Your task to perform on an android device: Search for "dell xps" on costco, select the first entry, add it to the cart, then select checkout. Image 0: 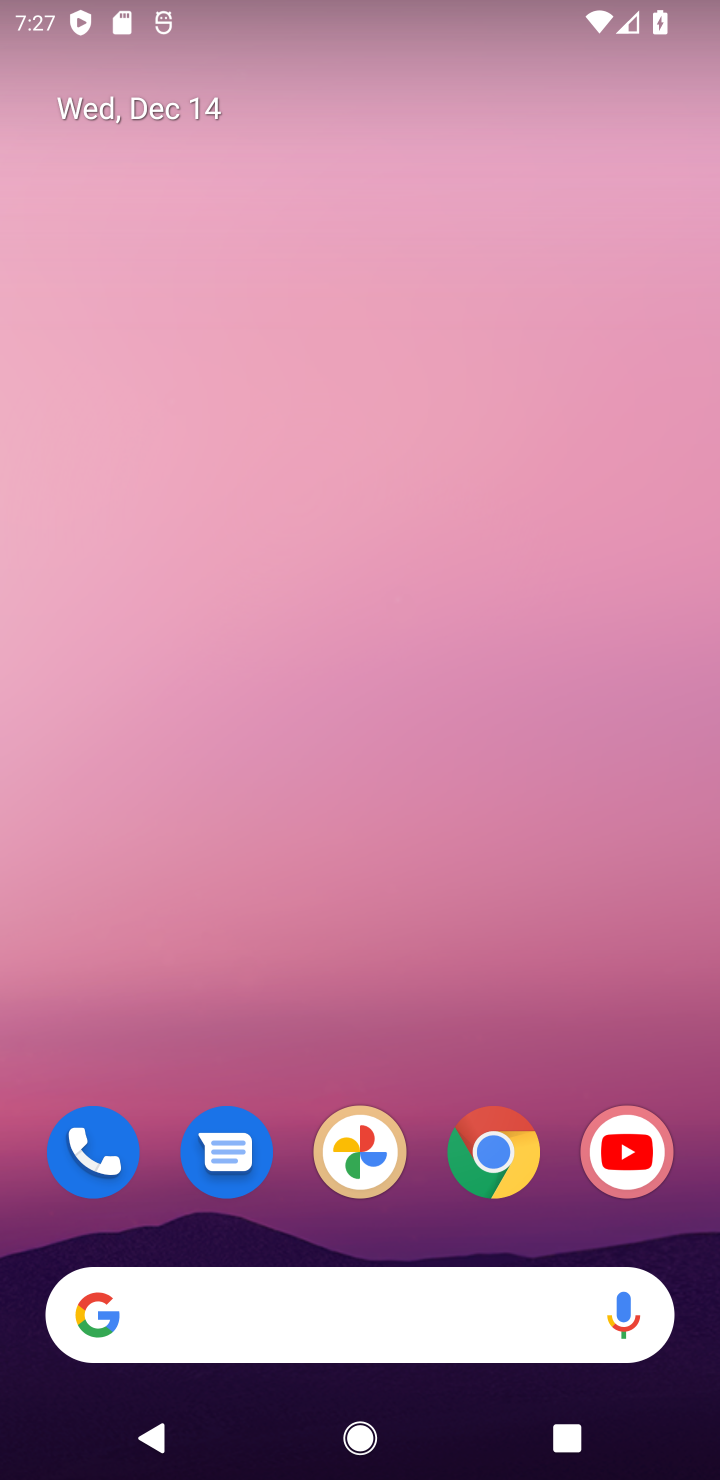
Step 0: click (495, 1140)
Your task to perform on an android device: Search for "dell xps" on costco, select the first entry, add it to the cart, then select checkout. Image 1: 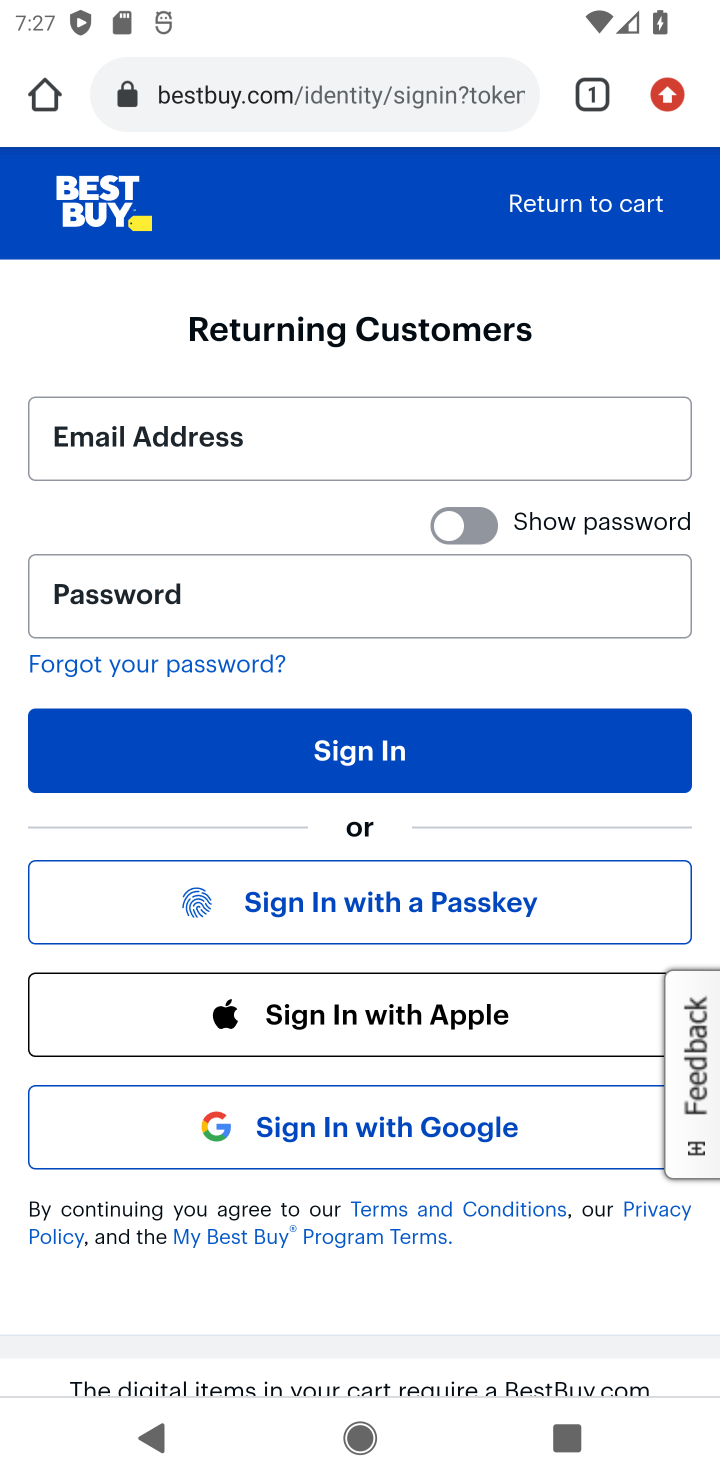
Step 1: click (261, 92)
Your task to perform on an android device: Search for "dell xps" on costco, select the first entry, add it to the cart, then select checkout. Image 2: 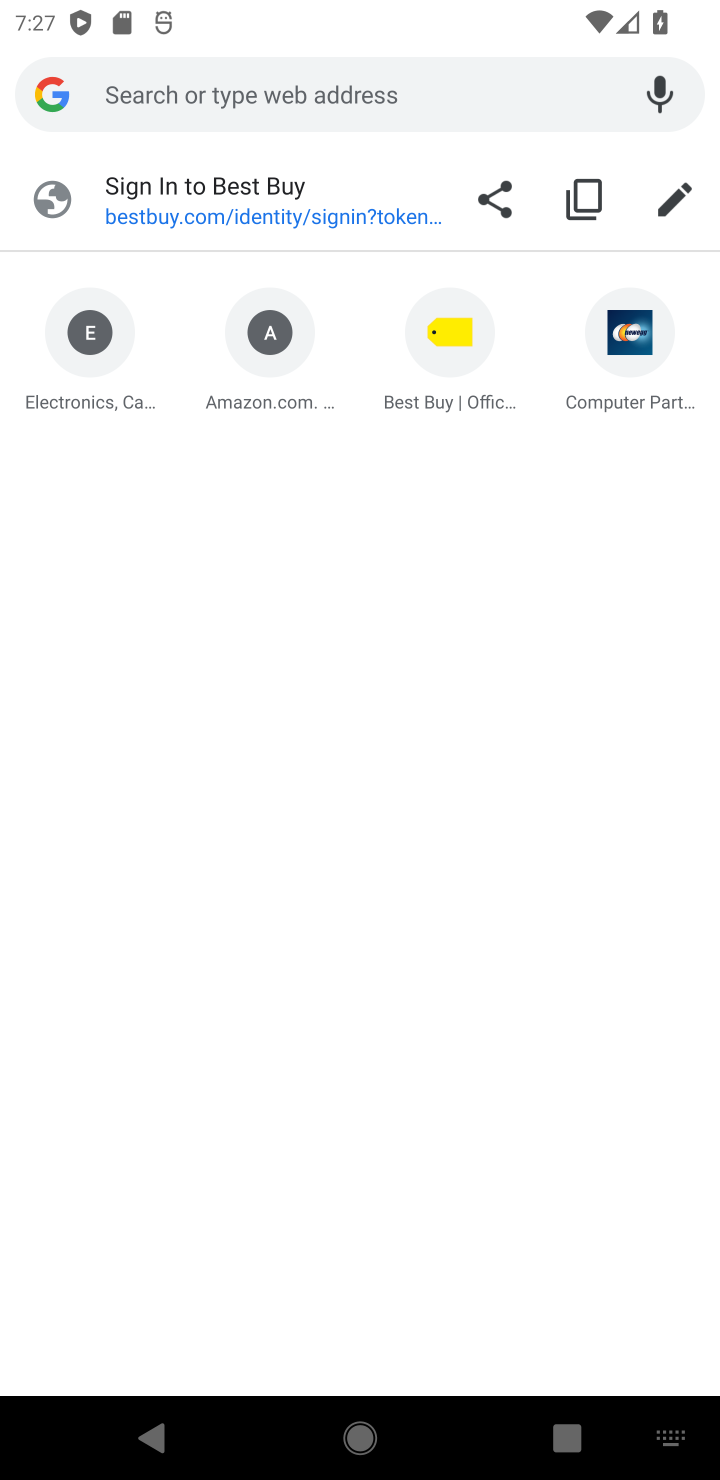
Step 2: type "costco.com"
Your task to perform on an android device: Search for "dell xps" on costco, select the first entry, add it to the cart, then select checkout. Image 3: 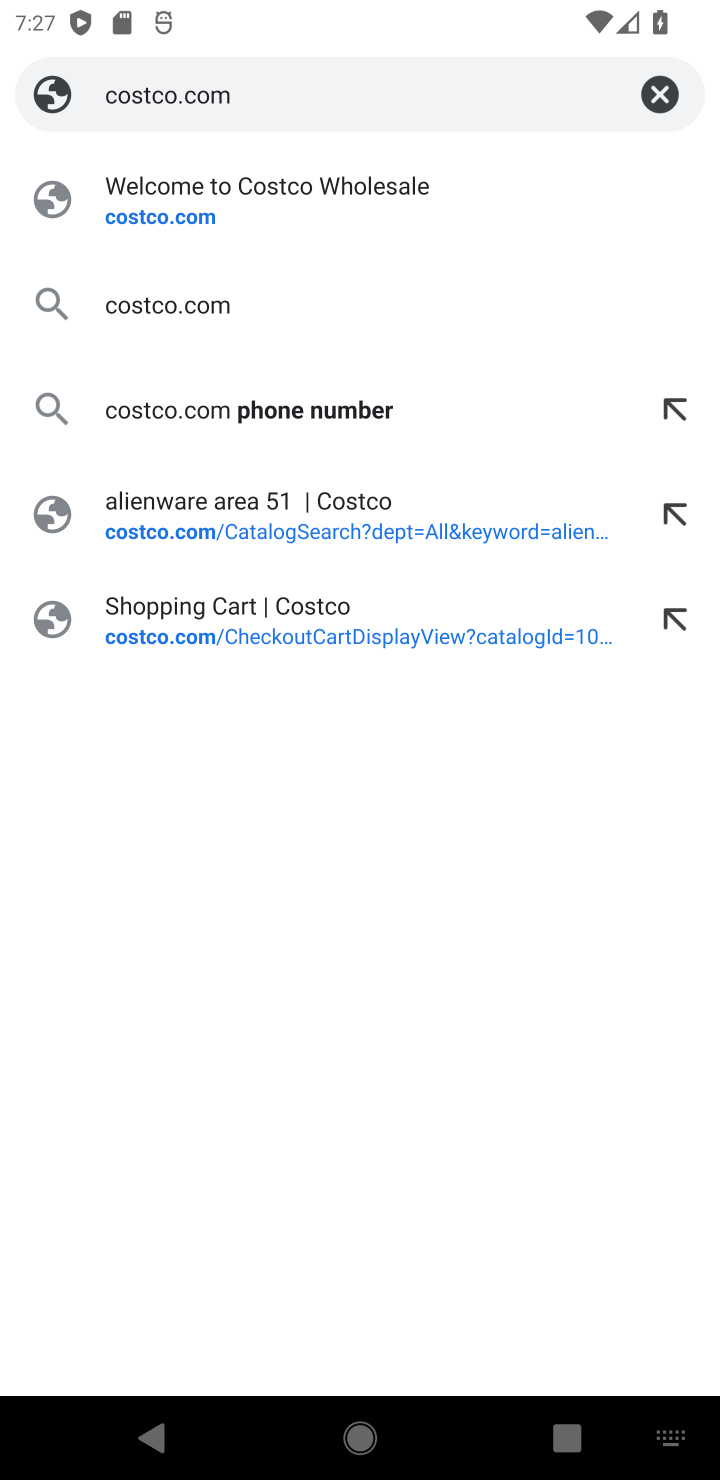
Step 3: click (176, 208)
Your task to perform on an android device: Search for "dell xps" on costco, select the first entry, add it to the cart, then select checkout. Image 4: 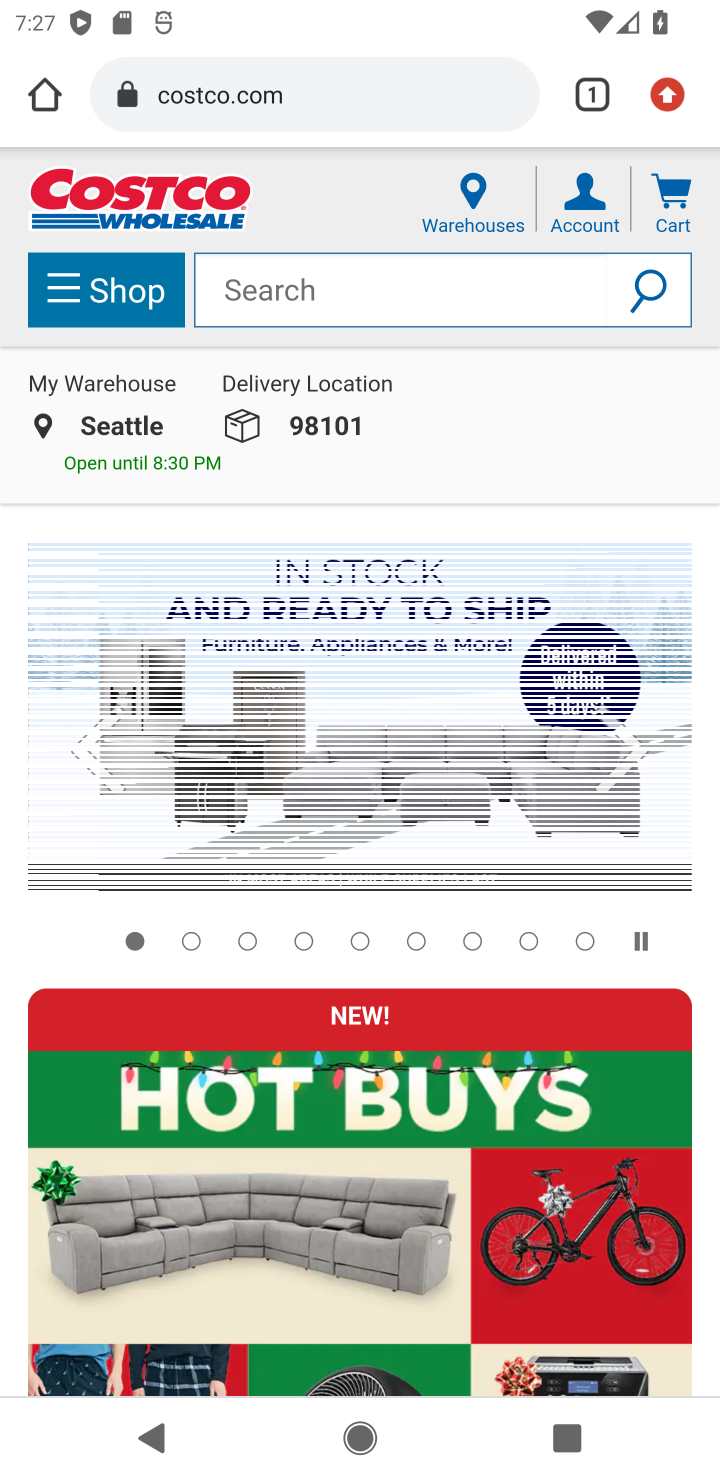
Step 4: click (321, 293)
Your task to perform on an android device: Search for "dell xps" on costco, select the first entry, add it to the cart, then select checkout. Image 5: 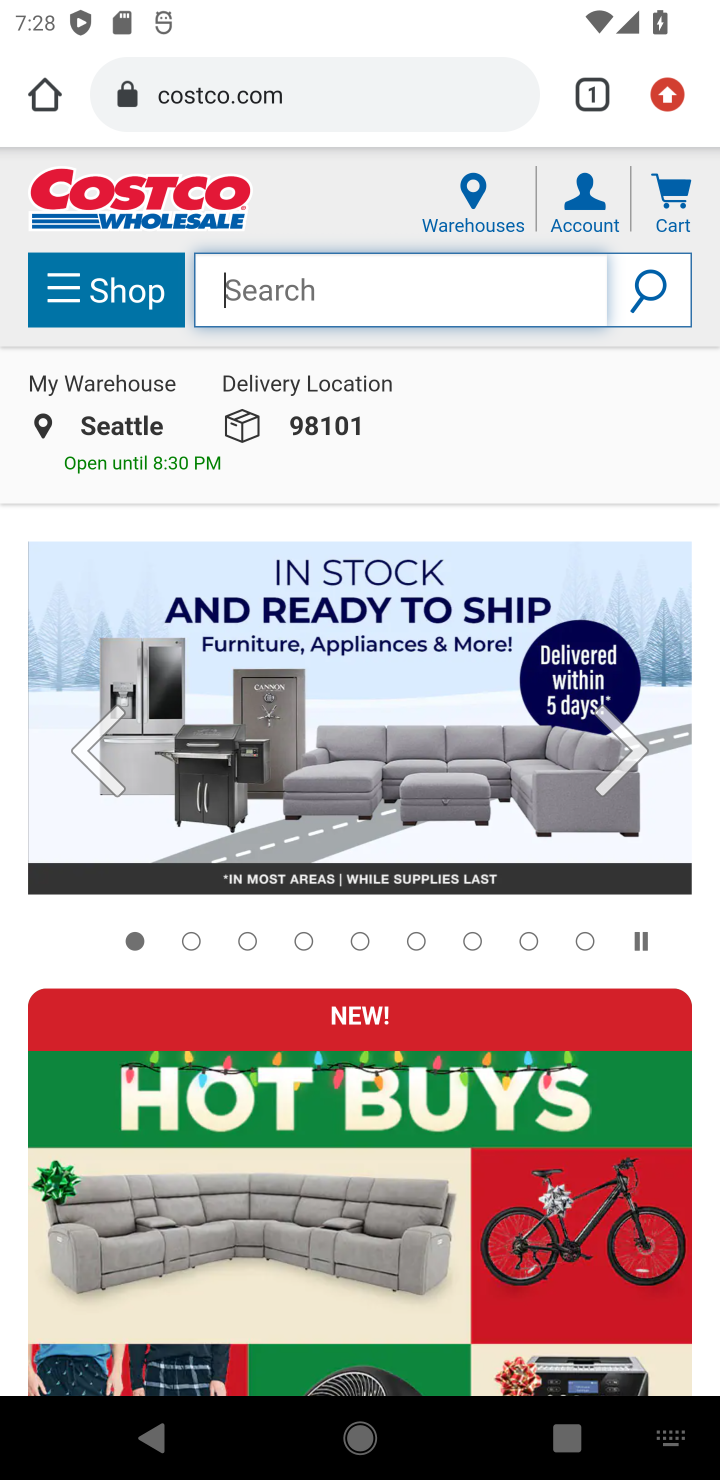
Step 5: type "dell xps"
Your task to perform on an android device: Search for "dell xps" on costco, select the first entry, add it to the cart, then select checkout. Image 6: 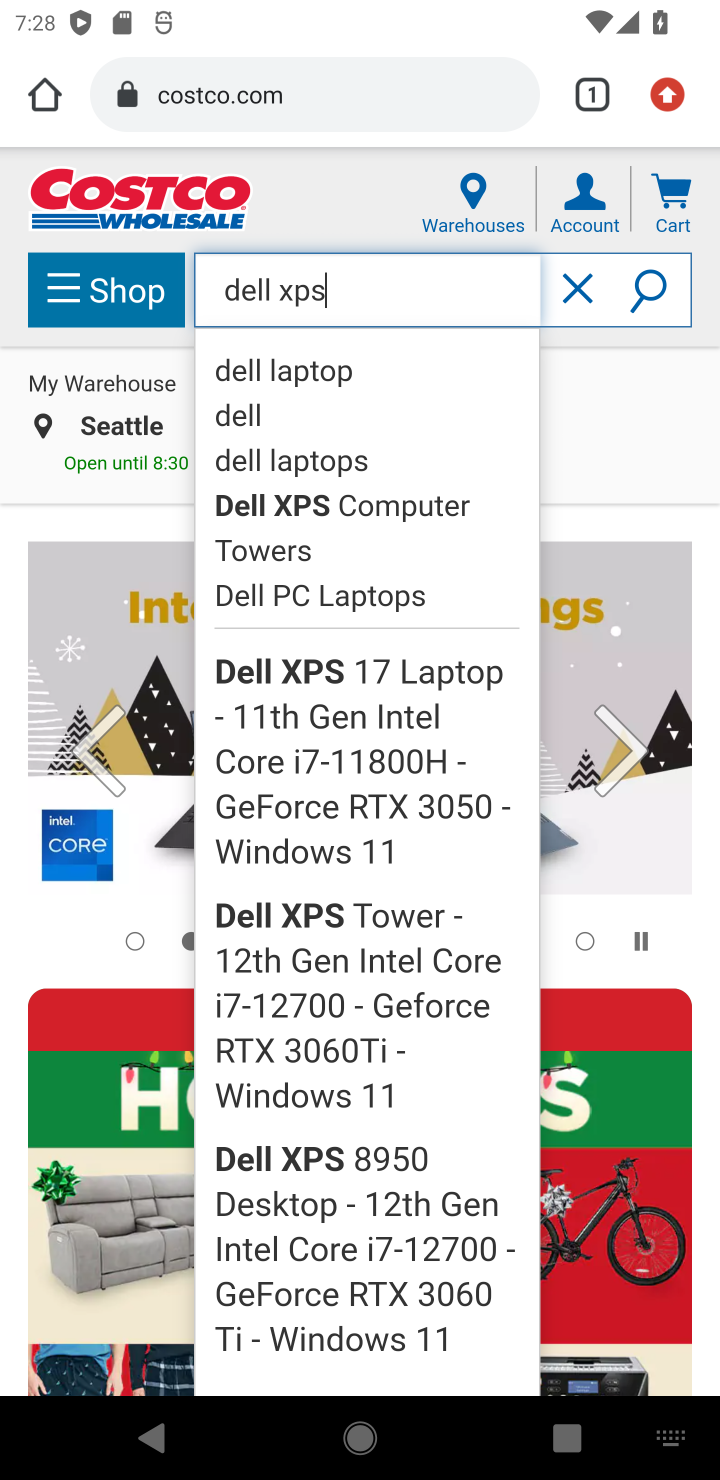
Step 6: click (654, 295)
Your task to perform on an android device: Search for "dell xps" on costco, select the first entry, add it to the cart, then select checkout. Image 7: 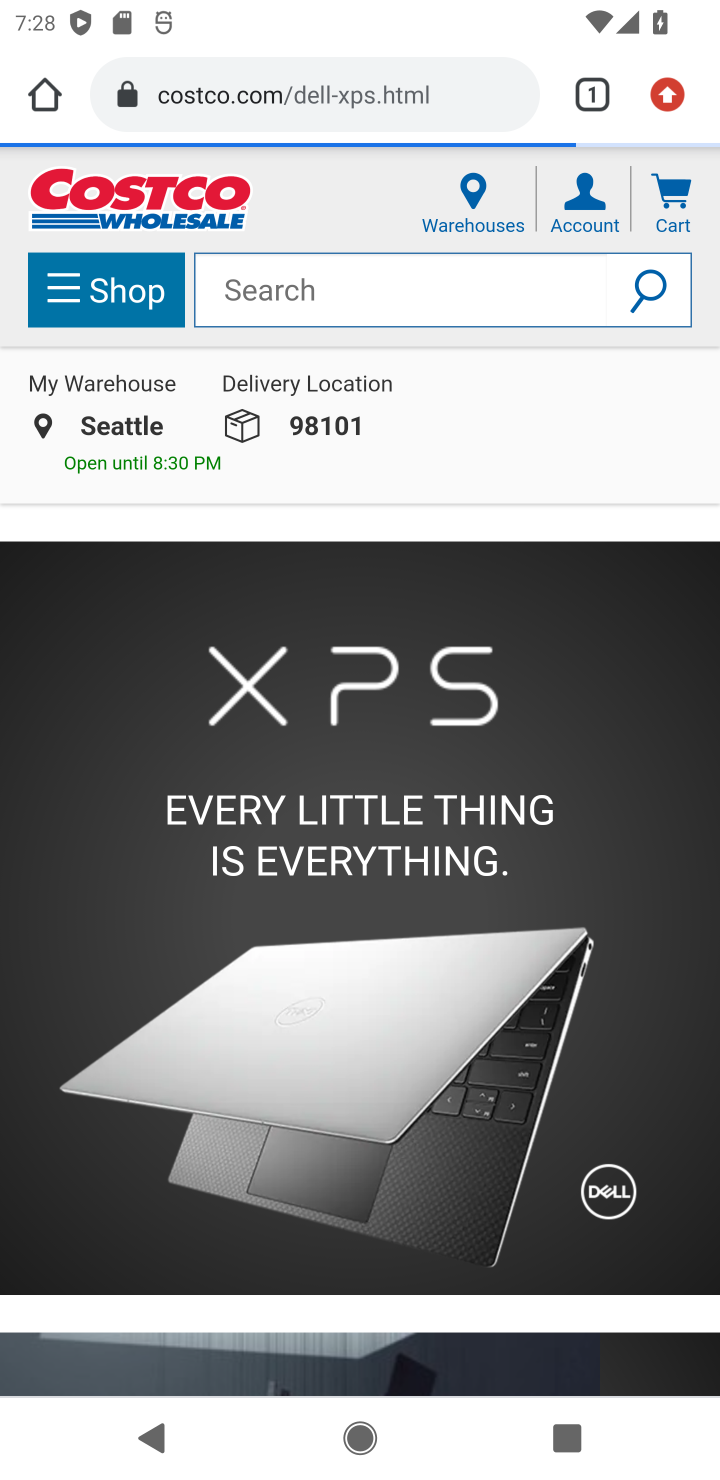
Step 7: task complete